Your task to perform on an android device: set the timer Image 0: 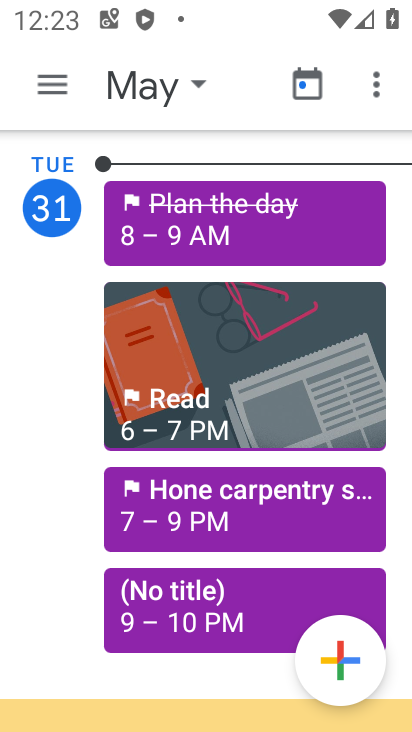
Step 0: press home button
Your task to perform on an android device: set the timer Image 1: 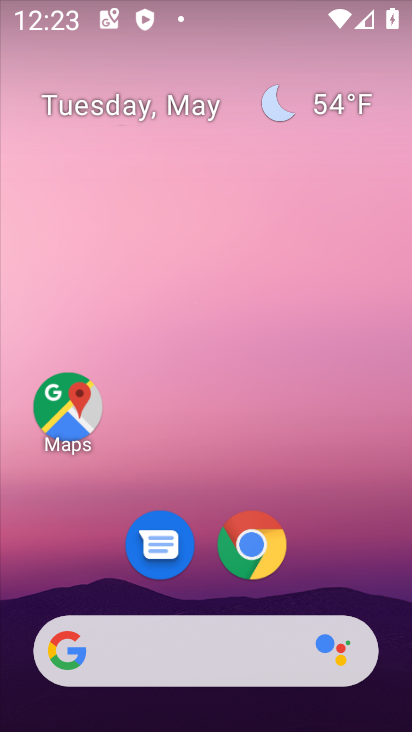
Step 1: drag from (334, 563) to (279, 2)
Your task to perform on an android device: set the timer Image 2: 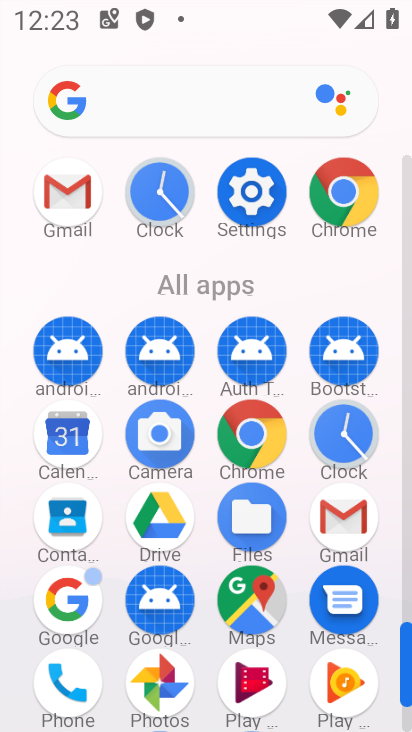
Step 2: click (335, 422)
Your task to perform on an android device: set the timer Image 3: 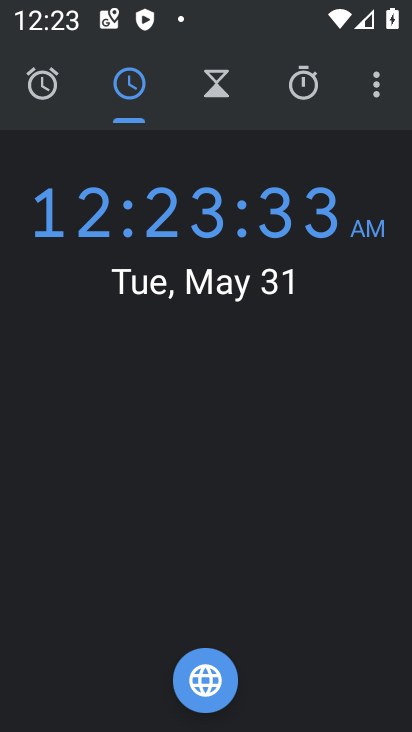
Step 3: click (225, 79)
Your task to perform on an android device: set the timer Image 4: 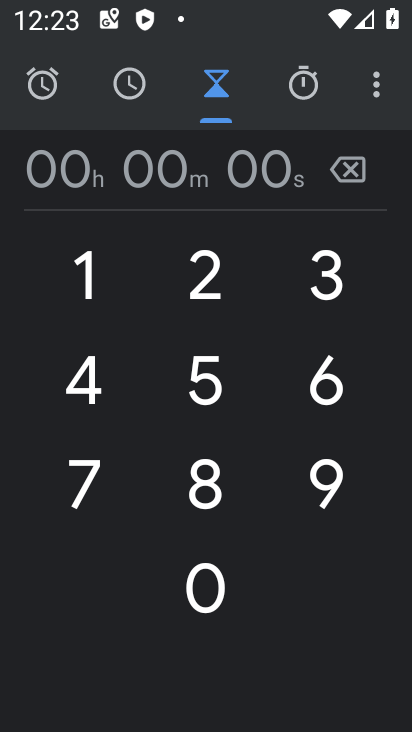
Step 4: click (220, 294)
Your task to perform on an android device: set the timer Image 5: 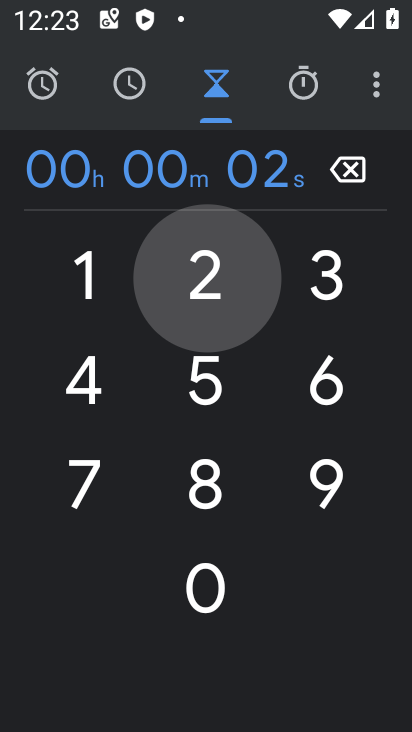
Step 5: click (221, 369)
Your task to perform on an android device: set the timer Image 6: 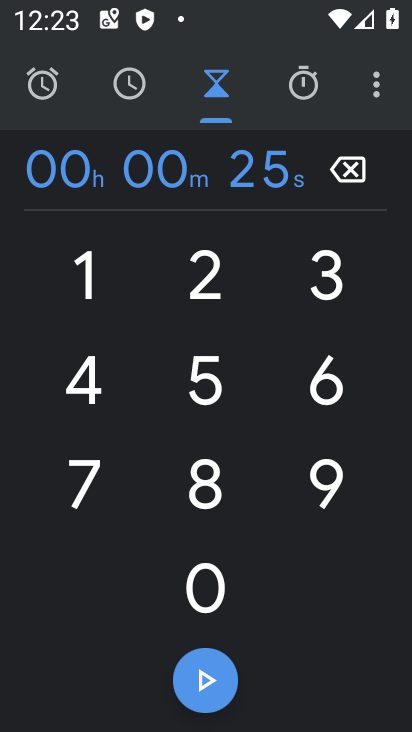
Step 6: task complete